Your task to perform on an android device: add a contact Image 0: 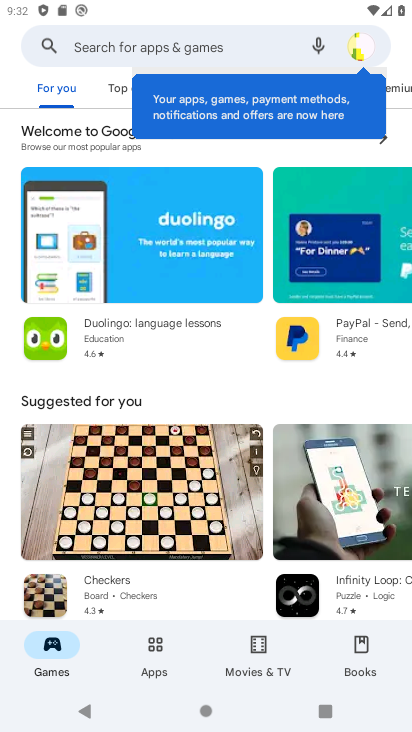
Step 0: press home button
Your task to perform on an android device: add a contact Image 1: 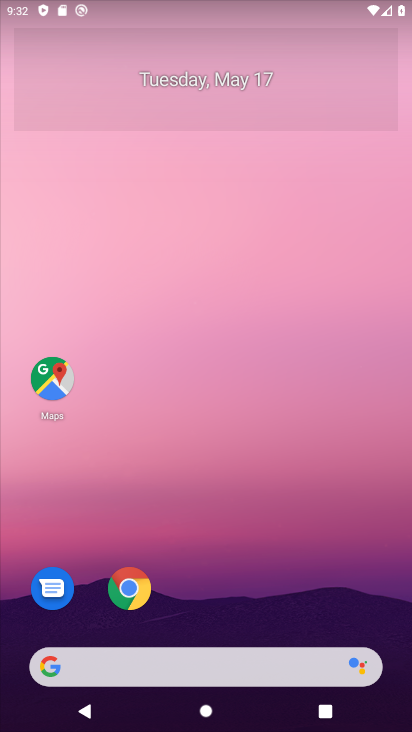
Step 1: drag from (229, 729) to (218, 104)
Your task to perform on an android device: add a contact Image 2: 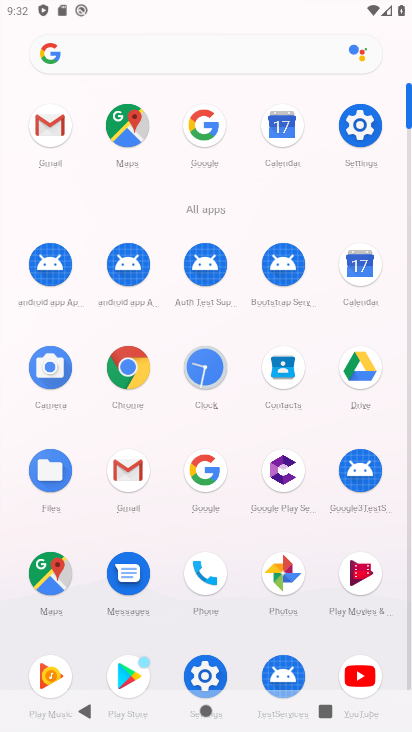
Step 2: click (279, 369)
Your task to perform on an android device: add a contact Image 3: 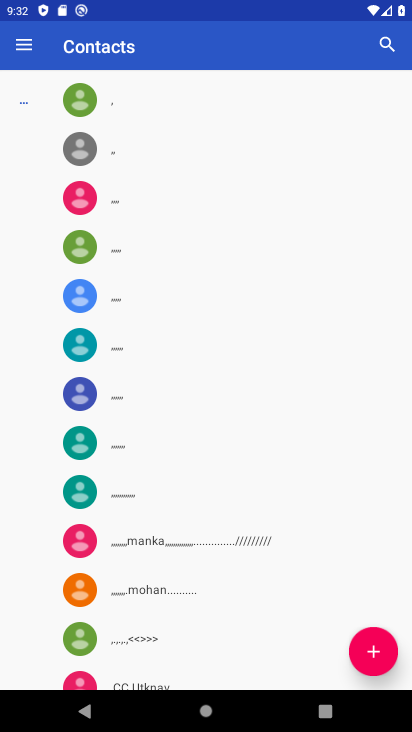
Step 3: click (373, 648)
Your task to perform on an android device: add a contact Image 4: 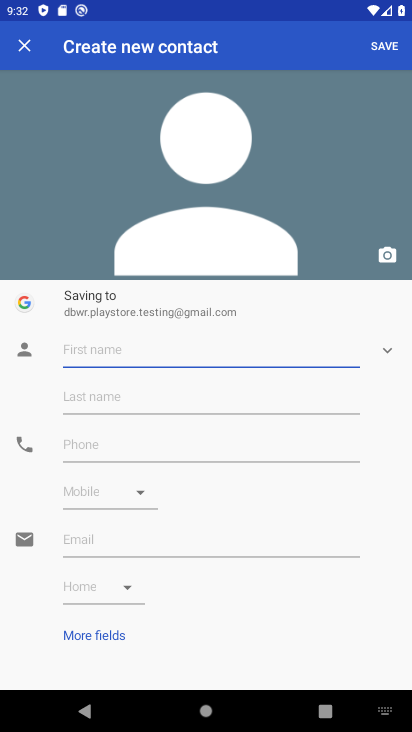
Step 4: click (129, 349)
Your task to perform on an android device: add a contact Image 5: 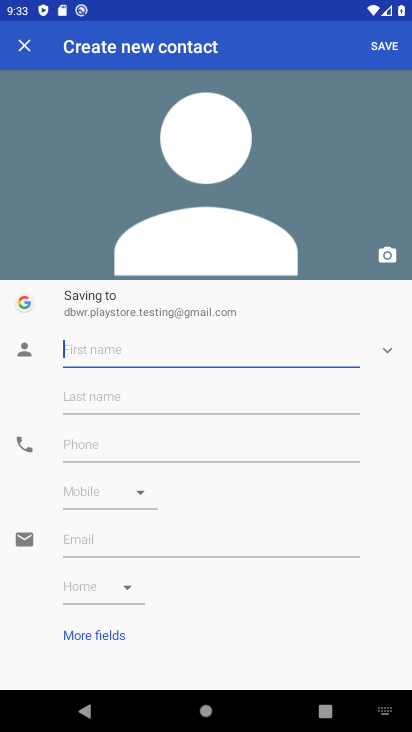
Step 5: type "KGF"
Your task to perform on an android device: add a contact Image 6: 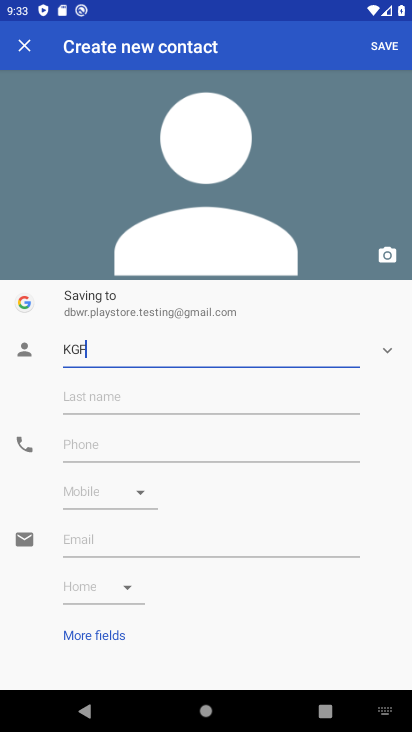
Step 6: click (146, 444)
Your task to perform on an android device: add a contact Image 7: 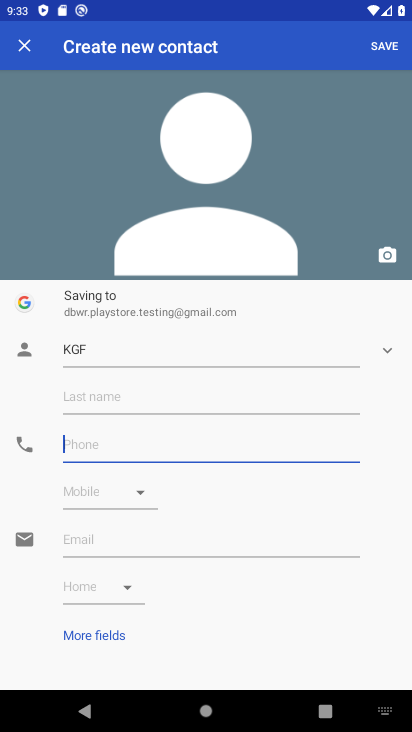
Step 7: type "888888"
Your task to perform on an android device: add a contact Image 8: 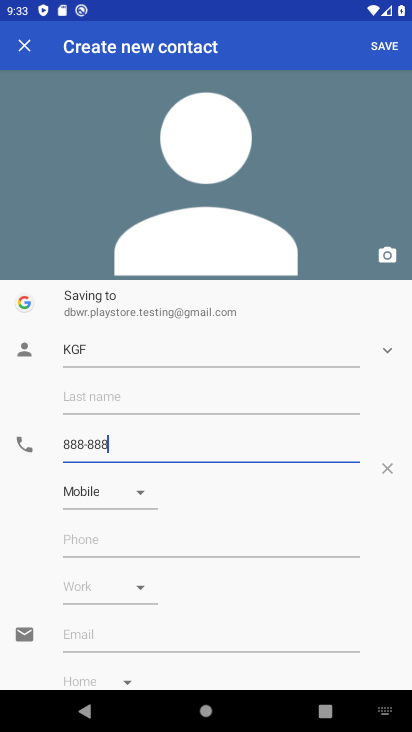
Step 8: click (385, 43)
Your task to perform on an android device: add a contact Image 9: 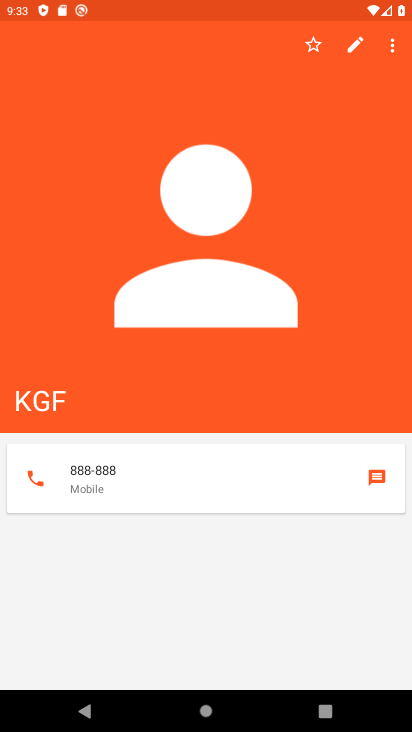
Step 9: task complete